Your task to perform on an android device: turn off javascript in the chrome app Image 0: 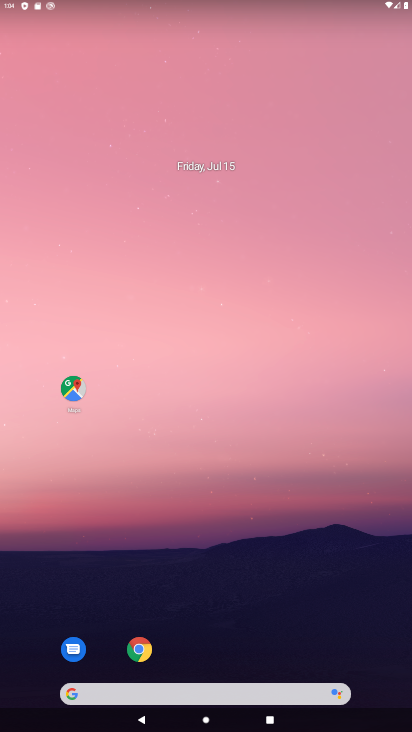
Step 0: drag from (236, 682) to (294, 117)
Your task to perform on an android device: turn off javascript in the chrome app Image 1: 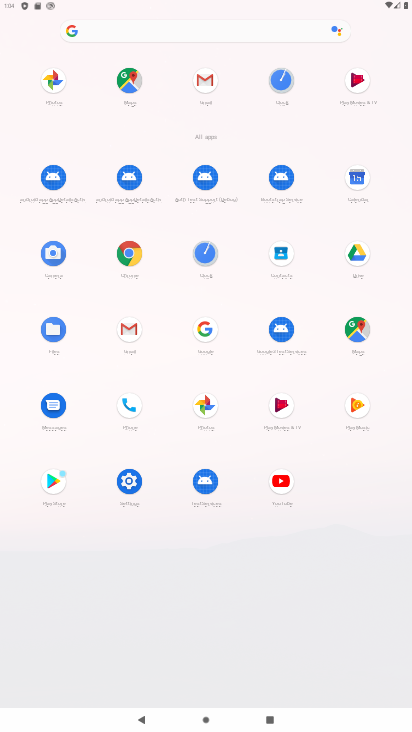
Step 1: click (118, 253)
Your task to perform on an android device: turn off javascript in the chrome app Image 2: 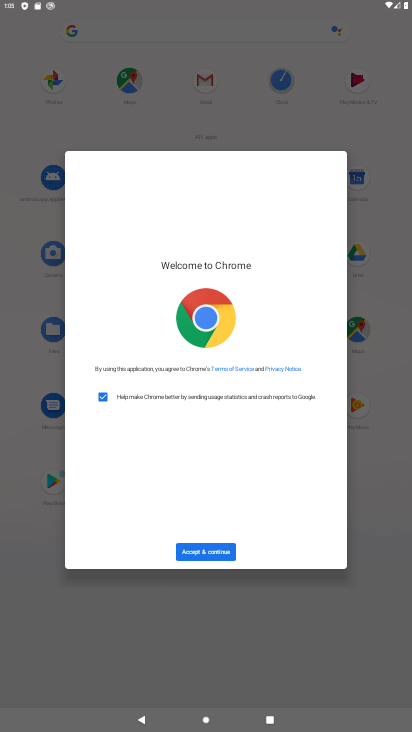
Step 2: click (218, 549)
Your task to perform on an android device: turn off javascript in the chrome app Image 3: 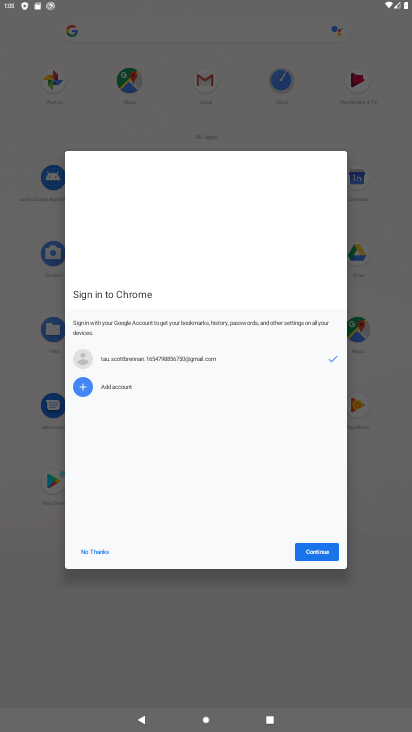
Step 3: click (93, 548)
Your task to perform on an android device: turn off javascript in the chrome app Image 4: 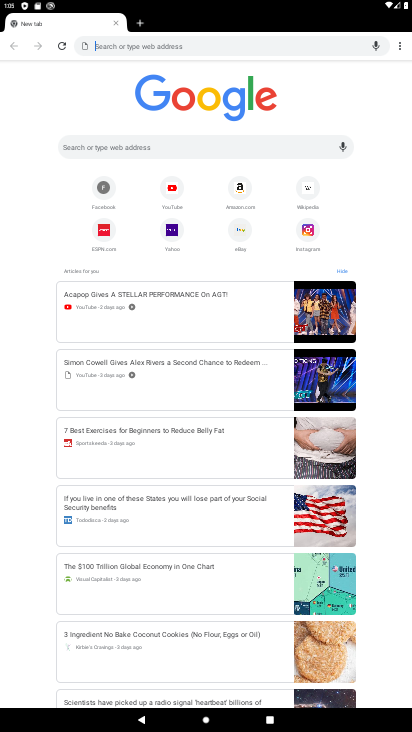
Step 4: click (402, 38)
Your task to perform on an android device: turn off javascript in the chrome app Image 5: 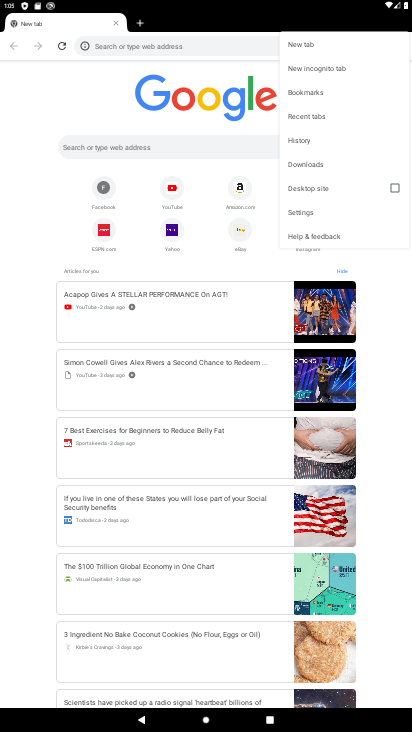
Step 5: click (319, 212)
Your task to perform on an android device: turn off javascript in the chrome app Image 6: 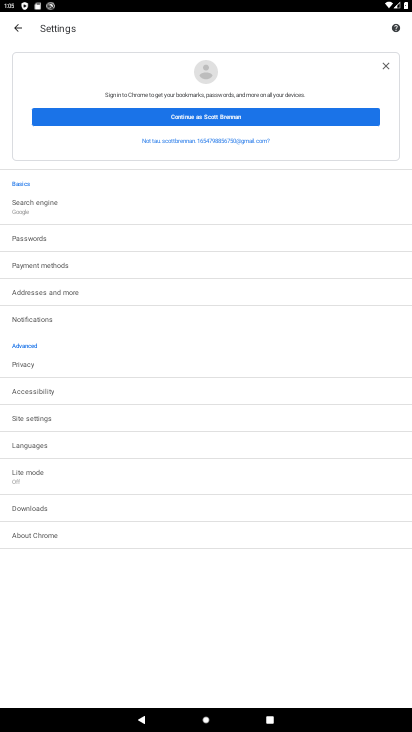
Step 6: click (53, 414)
Your task to perform on an android device: turn off javascript in the chrome app Image 7: 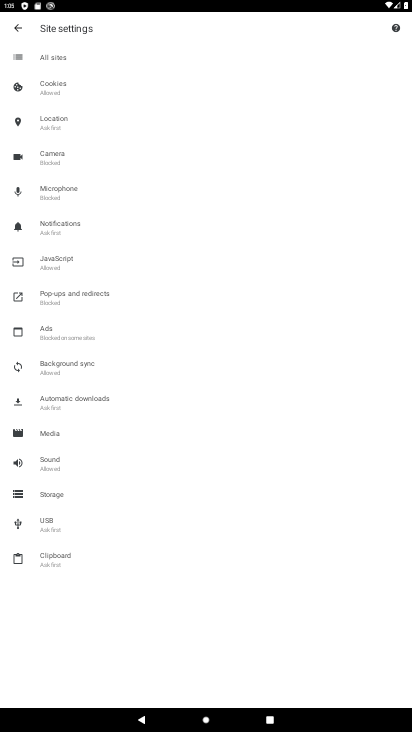
Step 7: click (61, 259)
Your task to perform on an android device: turn off javascript in the chrome app Image 8: 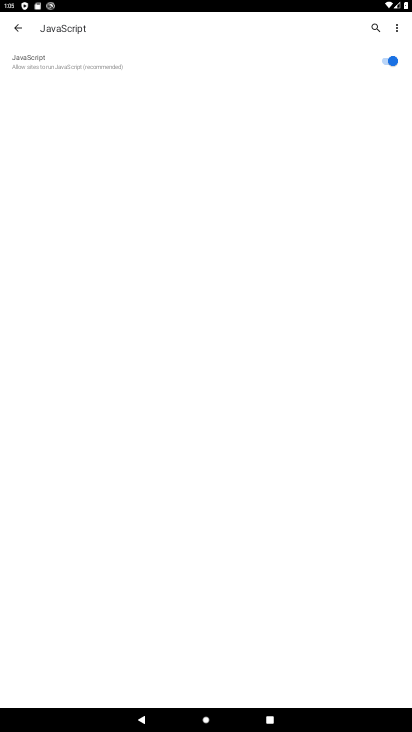
Step 8: task complete